Your task to perform on an android device: Open battery settings Image 0: 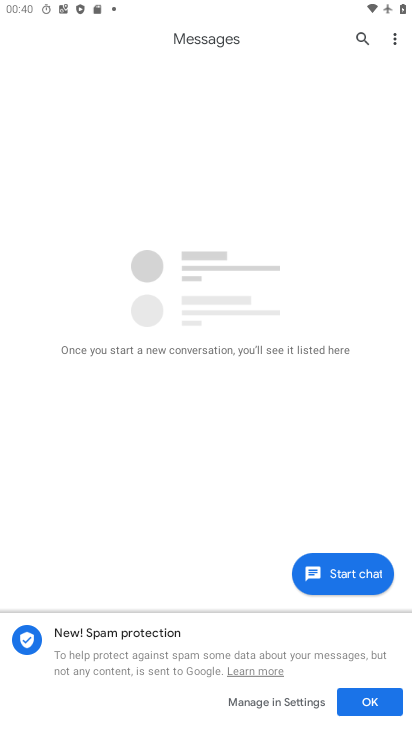
Step 0: press home button
Your task to perform on an android device: Open battery settings Image 1: 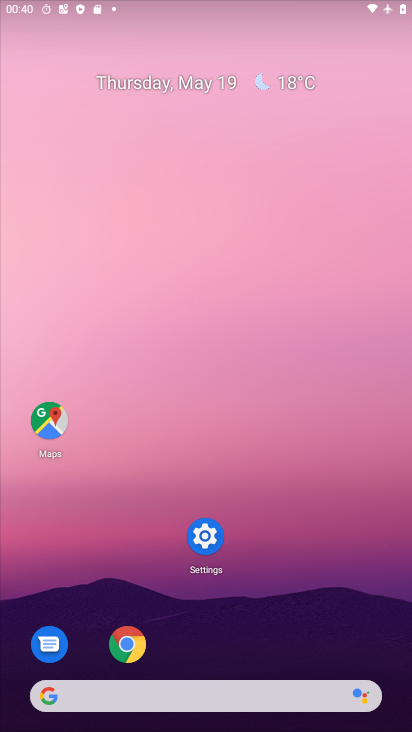
Step 1: drag from (385, 545) to (385, 159)
Your task to perform on an android device: Open battery settings Image 2: 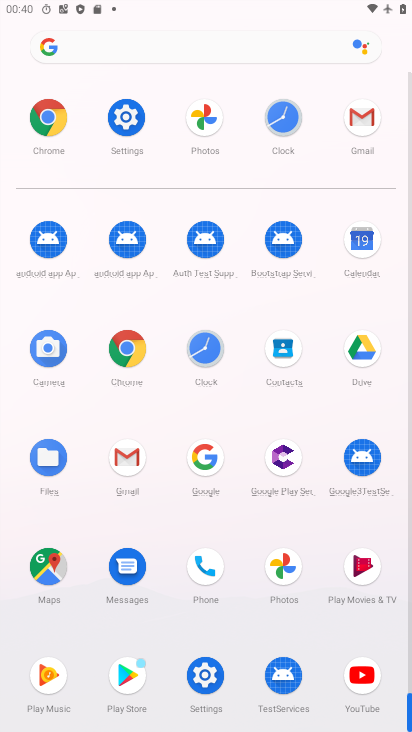
Step 2: click (133, 105)
Your task to perform on an android device: Open battery settings Image 3: 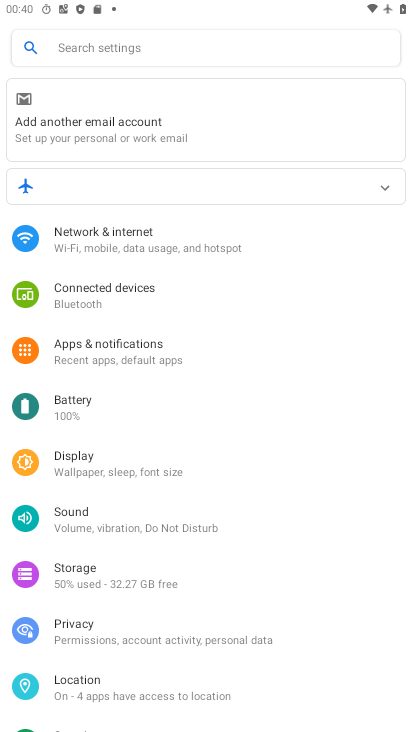
Step 3: drag from (261, 546) to (309, 238)
Your task to perform on an android device: Open battery settings Image 4: 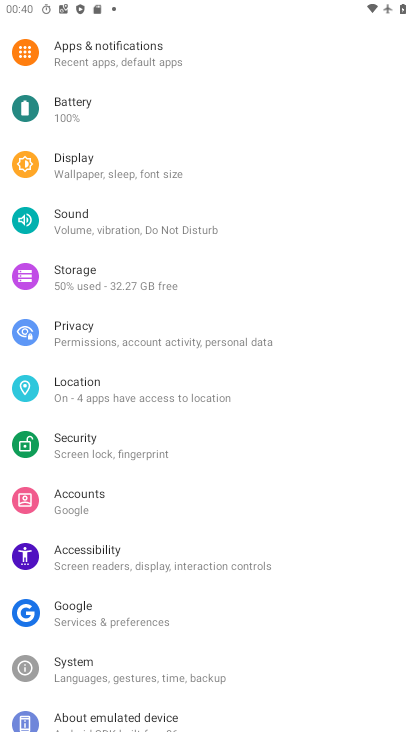
Step 4: drag from (174, 613) to (283, 229)
Your task to perform on an android device: Open battery settings Image 5: 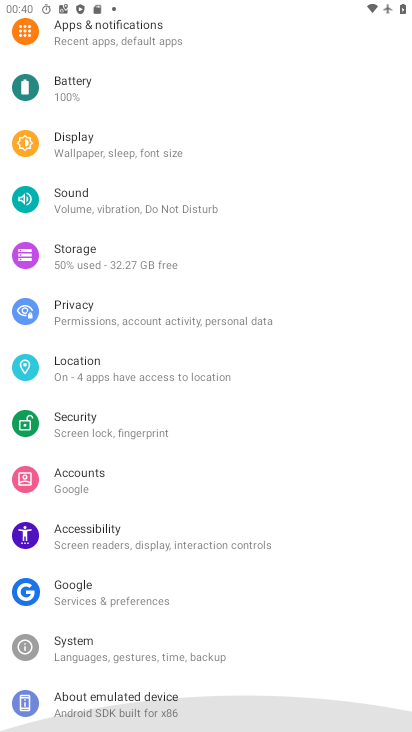
Step 5: drag from (269, 265) to (247, 602)
Your task to perform on an android device: Open battery settings Image 6: 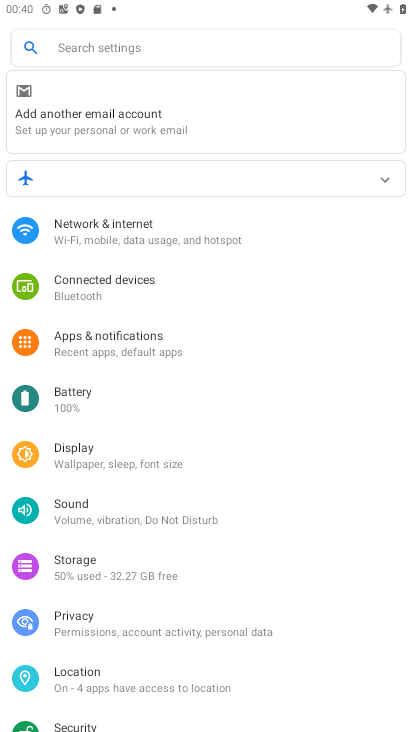
Step 6: click (86, 401)
Your task to perform on an android device: Open battery settings Image 7: 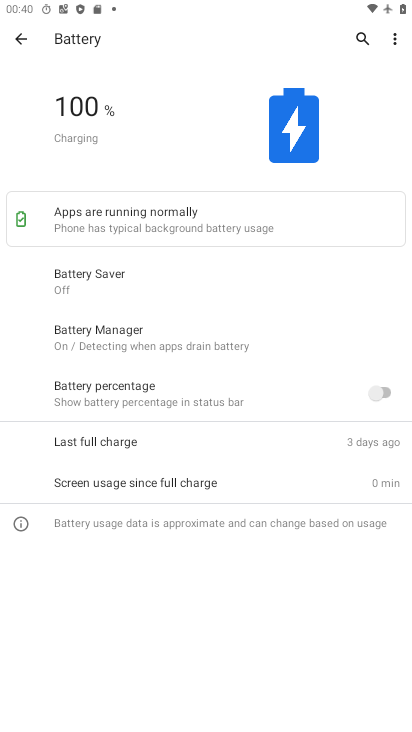
Step 7: task complete